Your task to perform on an android device: Open the calendar and show me this week's events? Image 0: 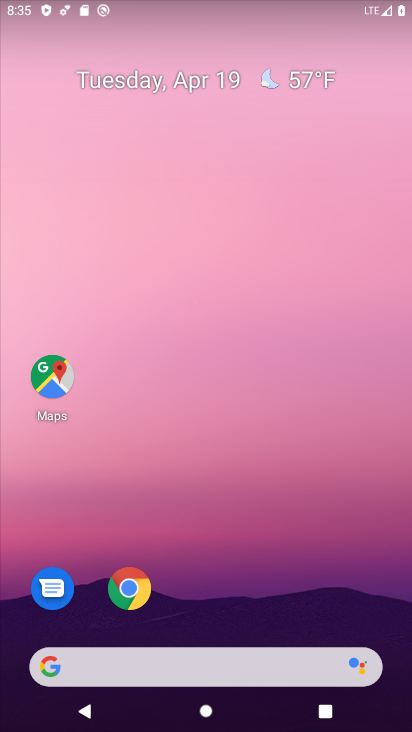
Step 0: drag from (269, 581) to (268, 53)
Your task to perform on an android device: Open the calendar and show me this week's events? Image 1: 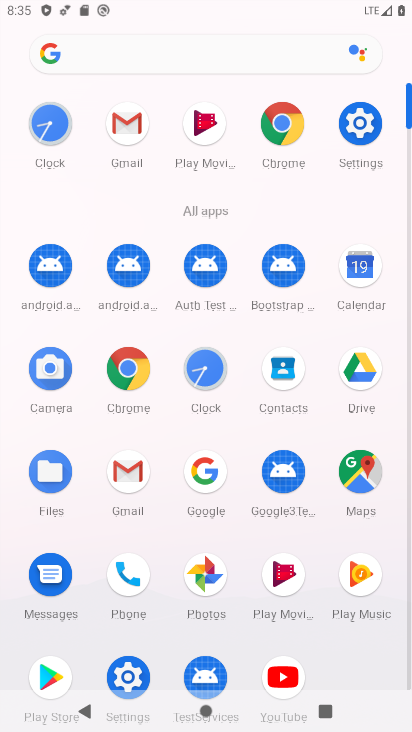
Step 1: click (348, 284)
Your task to perform on an android device: Open the calendar and show me this week's events? Image 2: 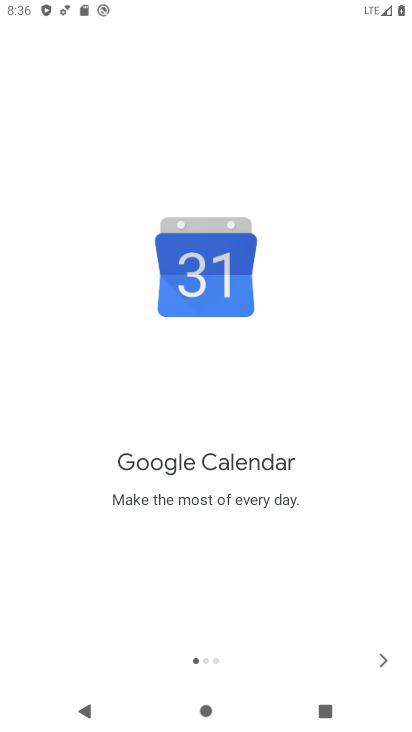
Step 2: click (390, 663)
Your task to perform on an android device: Open the calendar and show me this week's events? Image 3: 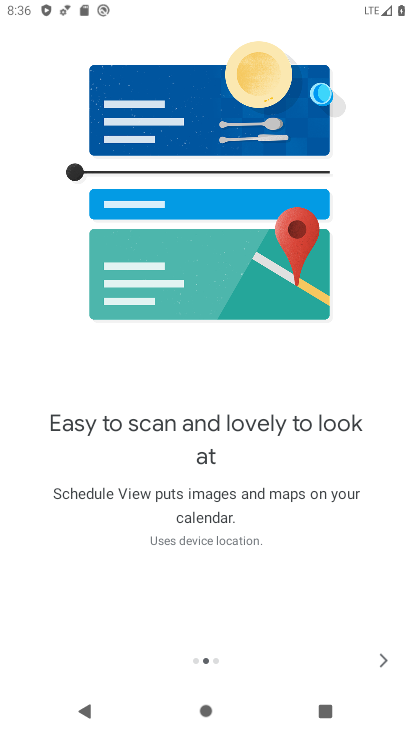
Step 3: click (386, 631)
Your task to perform on an android device: Open the calendar and show me this week's events? Image 4: 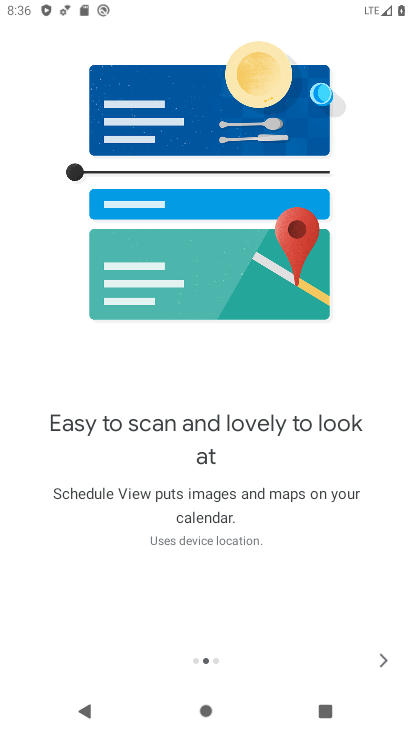
Step 4: click (391, 649)
Your task to perform on an android device: Open the calendar and show me this week's events? Image 5: 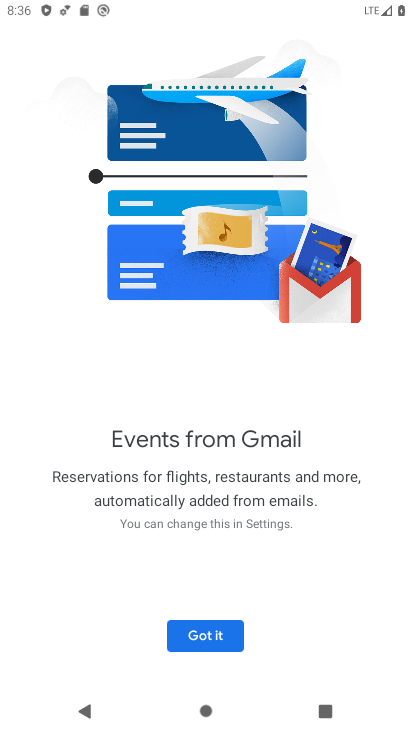
Step 5: click (227, 641)
Your task to perform on an android device: Open the calendar and show me this week's events? Image 6: 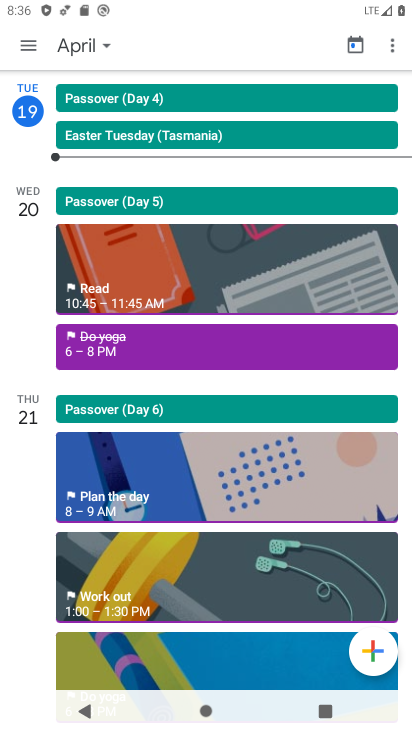
Step 6: click (87, 42)
Your task to perform on an android device: Open the calendar and show me this week's events? Image 7: 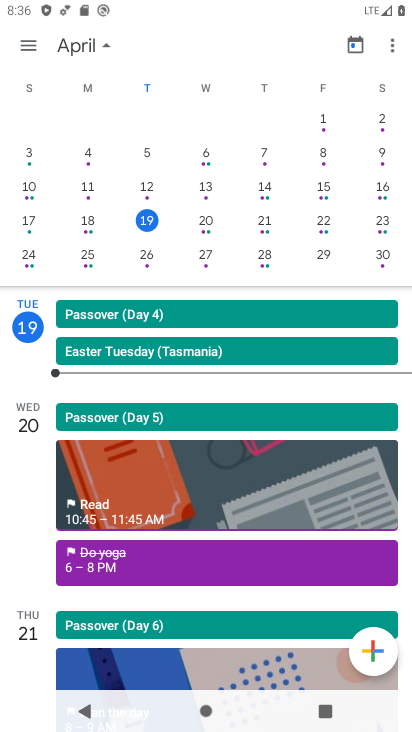
Step 7: click (212, 220)
Your task to perform on an android device: Open the calendar and show me this week's events? Image 8: 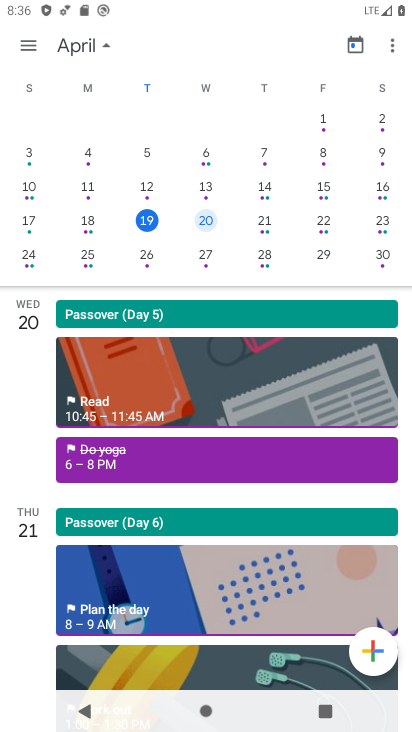
Step 8: click (274, 225)
Your task to perform on an android device: Open the calendar and show me this week's events? Image 9: 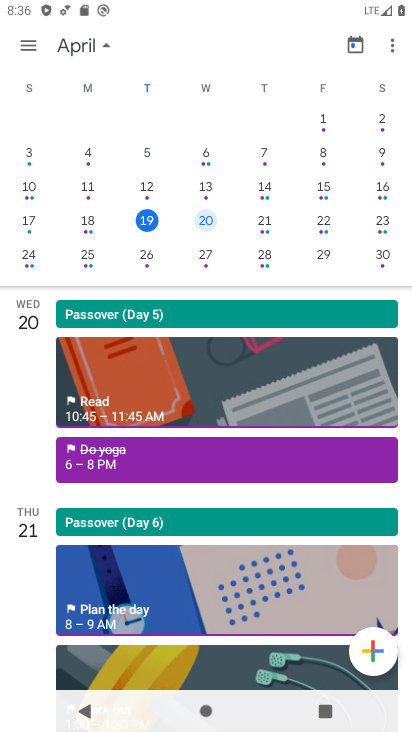
Step 9: click (272, 229)
Your task to perform on an android device: Open the calendar and show me this week's events? Image 10: 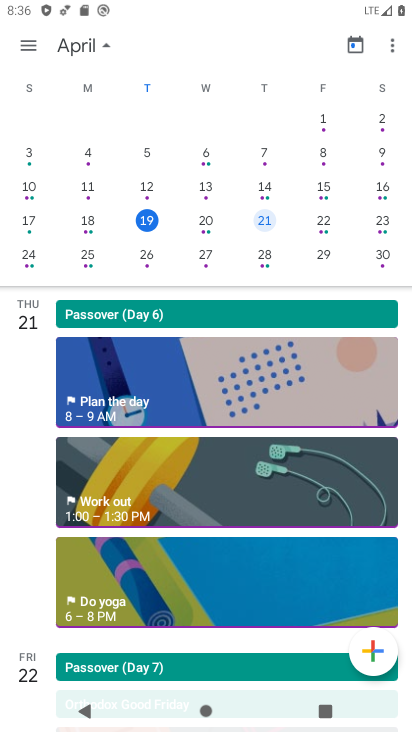
Step 10: click (331, 223)
Your task to perform on an android device: Open the calendar and show me this week's events? Image 11: 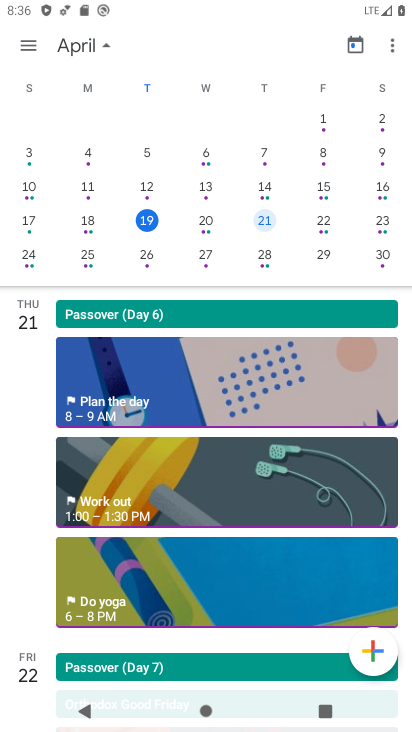
Step 11: click (334, 224)
Your task to perform on an android device: Open the calendar and show me this week's events? Image 12: 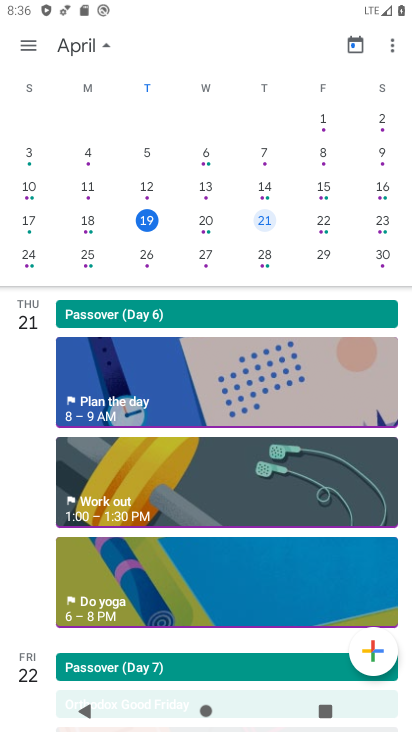
Step 12: click (331, 235)
Your task to perform on an android device: Open the calendar and show me this week's events? Image 13: 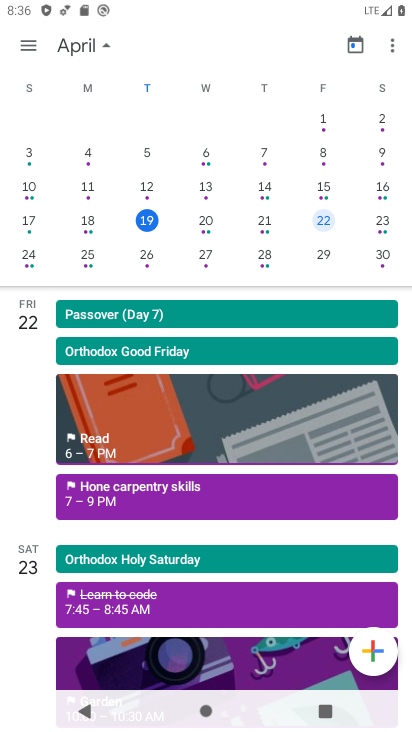
Step 13: click (393, 223)
Your task to perform on an android device: Open the calendar and show me this week's events? Image 14: 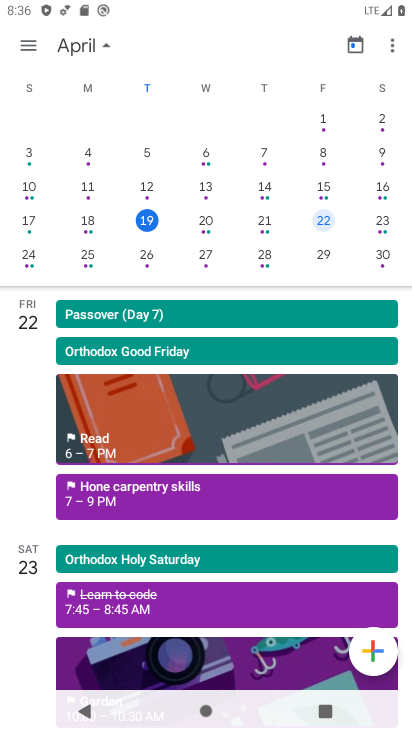
Step 14: click (394, 223)
Your task to perform on an android device: Open the calendar and show me this week's events? Image 15: 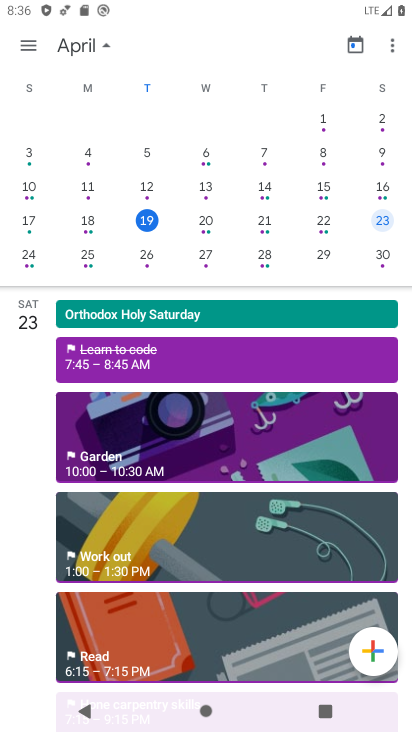
Step 15: task complete